Your task to perform on an android device: turn off sleep mode Image 0: 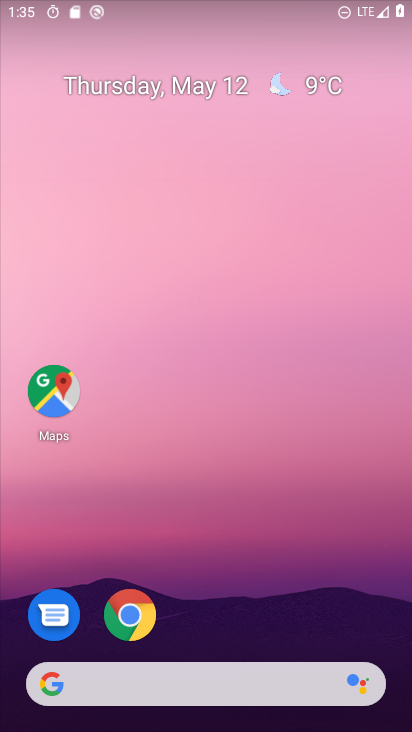
Step 0: drag from (282, 590) to (205, 51)
Your task to perform on an android device: turn off sleep mode Image 1: 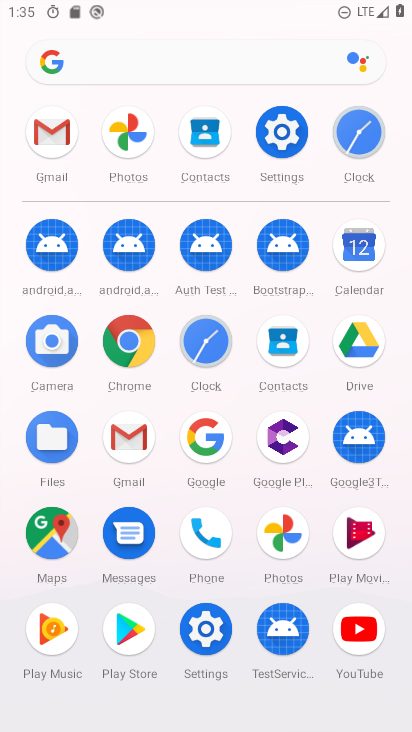
Step 1: click (286, 139)
Your task to perform on an android device: turn off sleep mode Image 2: 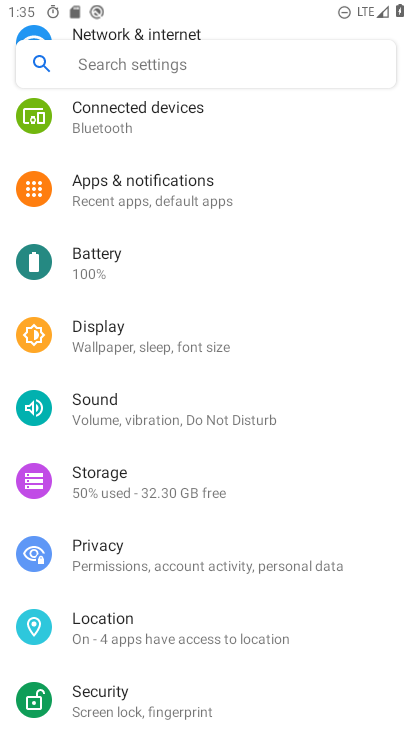
Step 2: click (120, 347)
Your task to perform on an android device: turn off sleep mode Image 3: 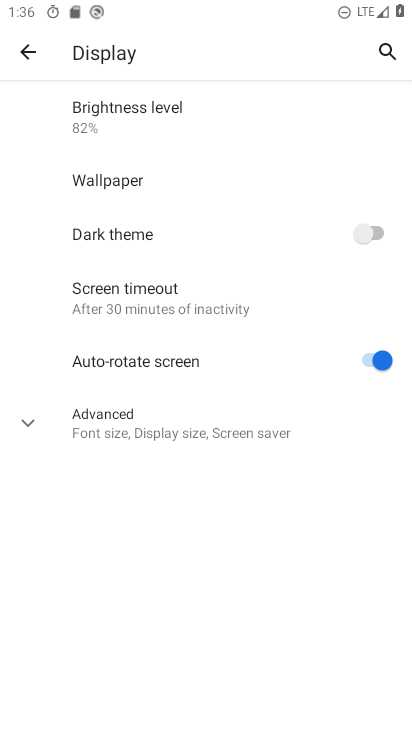
Step 3: click (146, 305)
Your task to perform on an android device: turn off sleep mode Image 4: 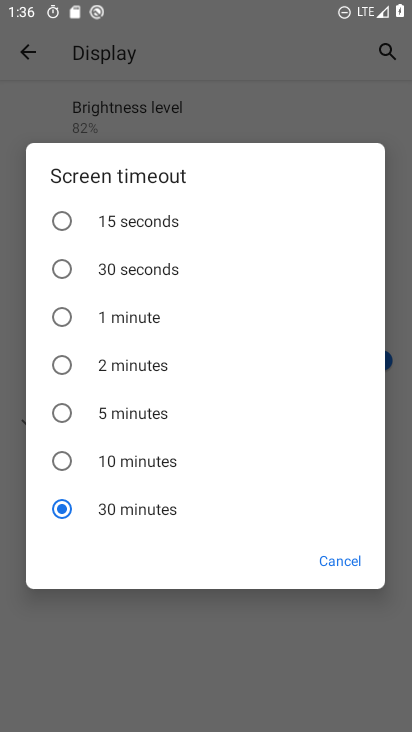
Step 4: task complete